Your task to perform on an android device: set the timer Image 0: 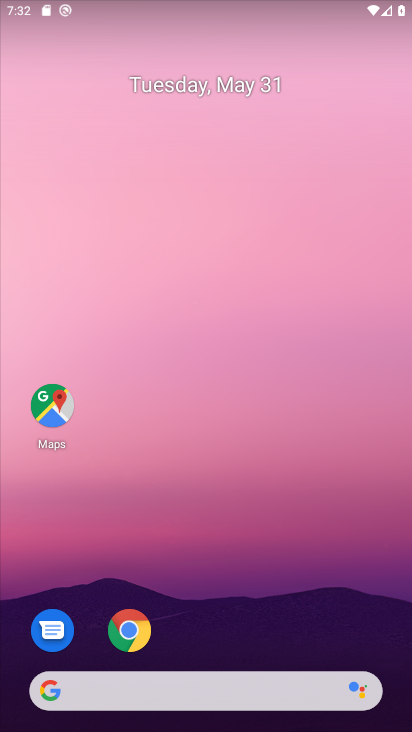
Step 0: drag from (263, 622) to (236, 19)
Your task to perform on an android device: set the timer Image 1: 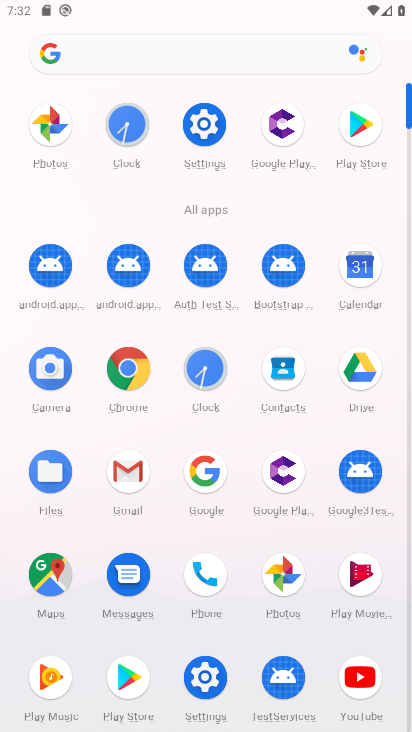
Step 1: click (126, 123)
Your task to perform on an android device: set the timer Image 2: 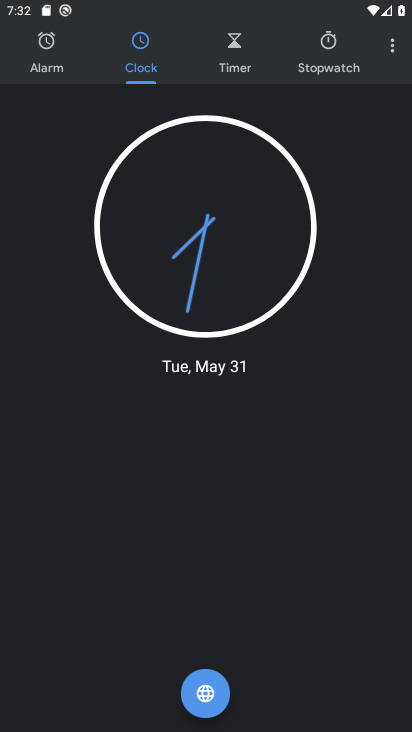
Step 2: click (236, 42)
Your task to perform on an android device: set the timer Image 3: 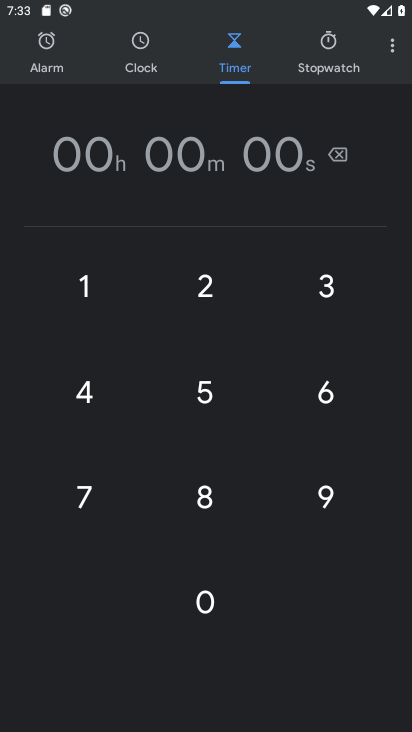
Step 3: type "1357"
Your task to perform on an android device: set the timer Image 4: 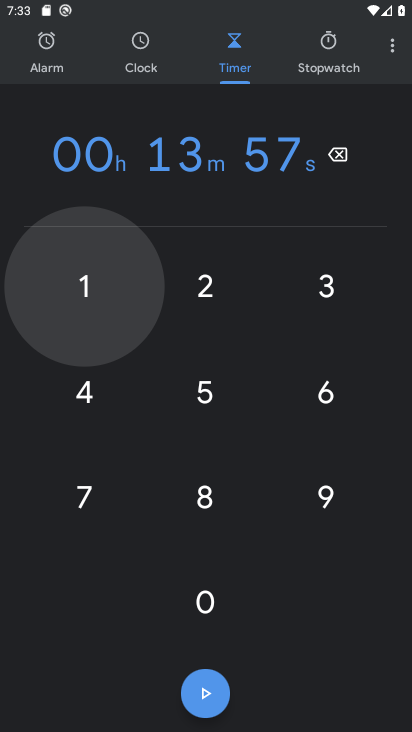
Step 4: click (212, 698)
Your task to perform on an android device: set the timer Image 5: 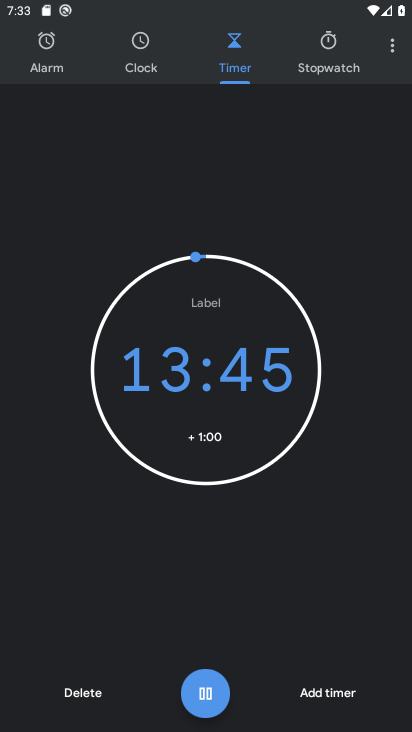
Step 5: click (202, 693)
Your task to perform on an android device: set the timer Image 6: 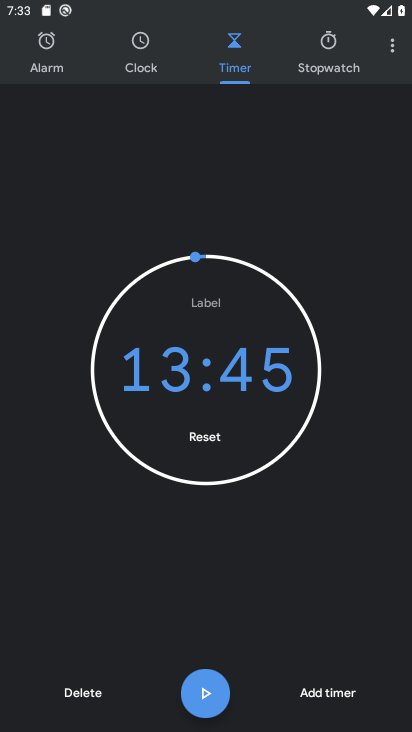
Step 6: task complete